Your task to perform on an android device: Go to battery settings Image 0: 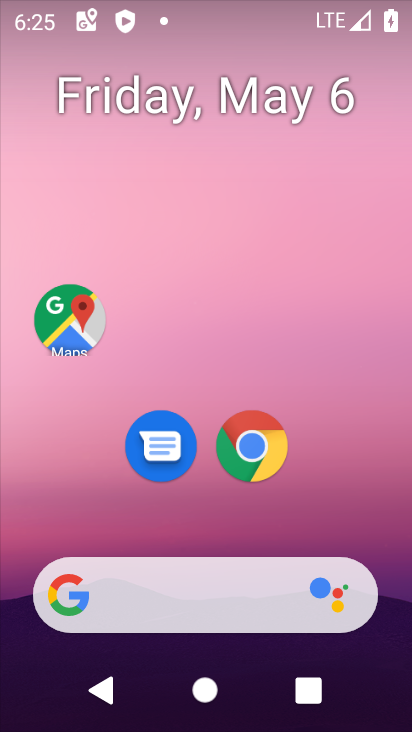
Step 0: drag from (307, 519) to (316, 162)
Your task to perform on an android device: Go to battery settings Image 1: 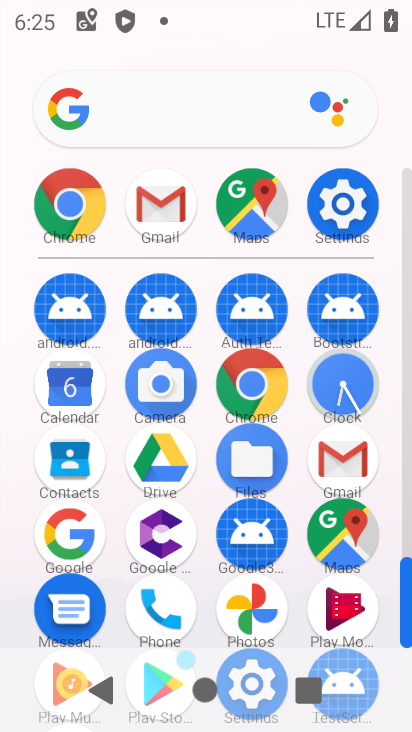
Step 1: click (348, 209)
Your task to perform on an android device: Go to battery settings Image 2: 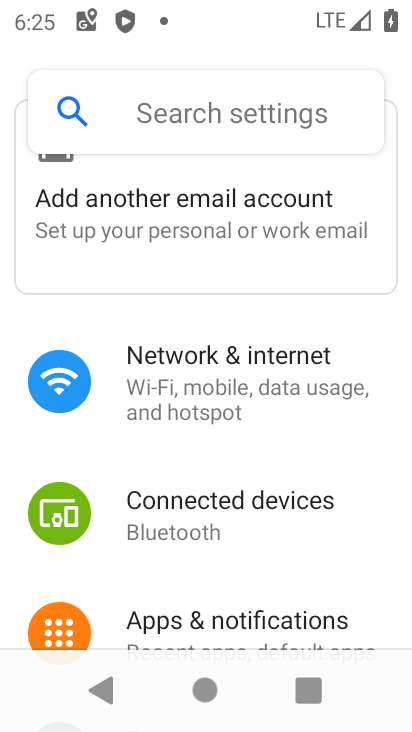
Step 2: drag from (208, 574) to (214, 319)
Your task to perform on an android device: Go to battery settings Image 3: 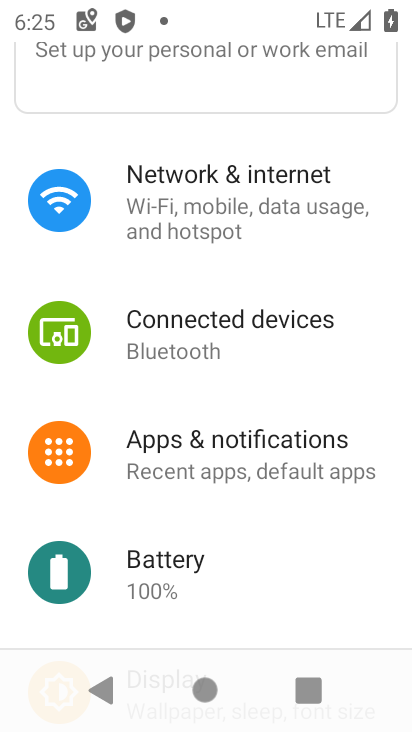
Step 3: click (177, 562)
Your task to perform on an android device: Go to battery settings Image 4: 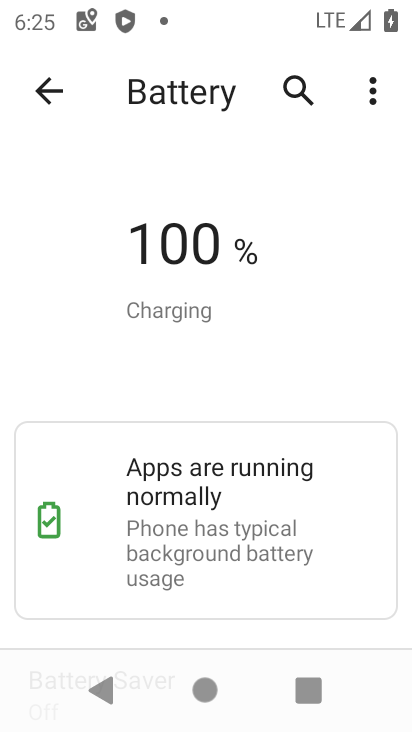
Step 4: task complete